Your task to perform on an android device: When is my next meeting? Image 0: 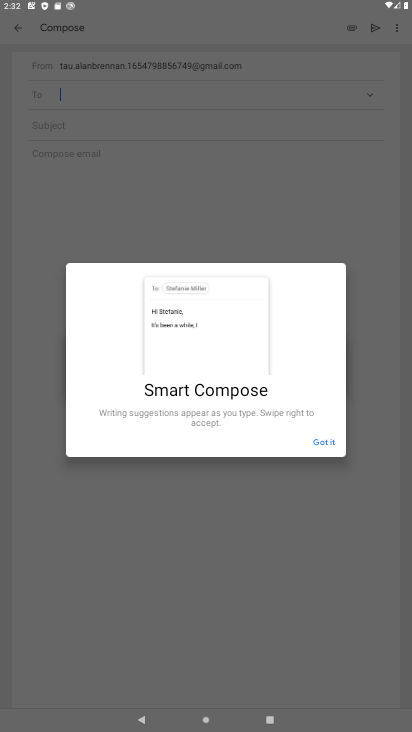
Step 0: press home button
Your task to perform on an android device: When is my next meeting? Image 1: 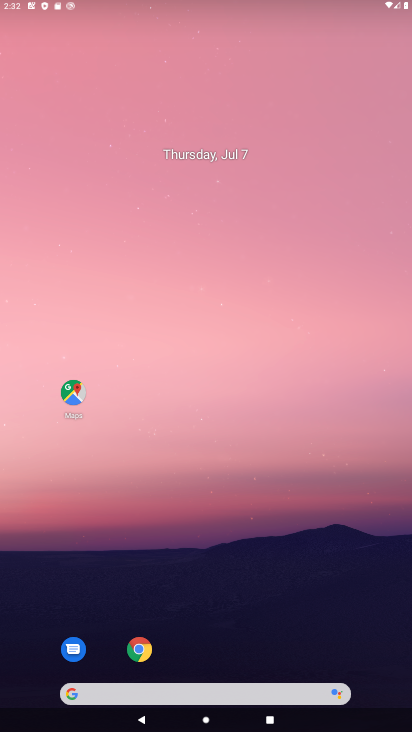
Step 1: drag from (295, 686) to (331, 52)
Your task to perform on an android device: When is my next meeting? Image 2: 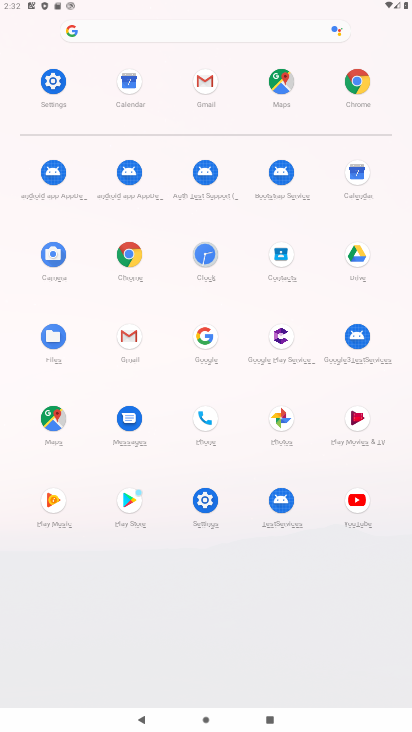
Step 2: click (360, 175)
Your task to perform on an android device: When is my next meeting? Image 3: 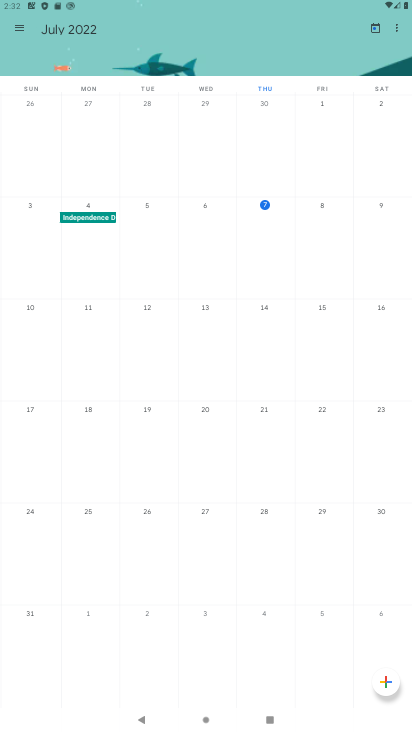
Step 3: click (316, 209)
Your task to perform on an android device: When is my next meeting? Image 4: 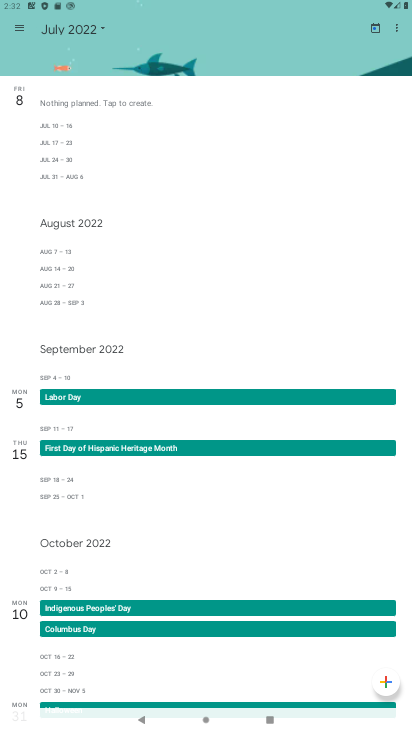
Step 4: task complete